Your task to perform on an android device: Open Chrome and go to settings Image 0: 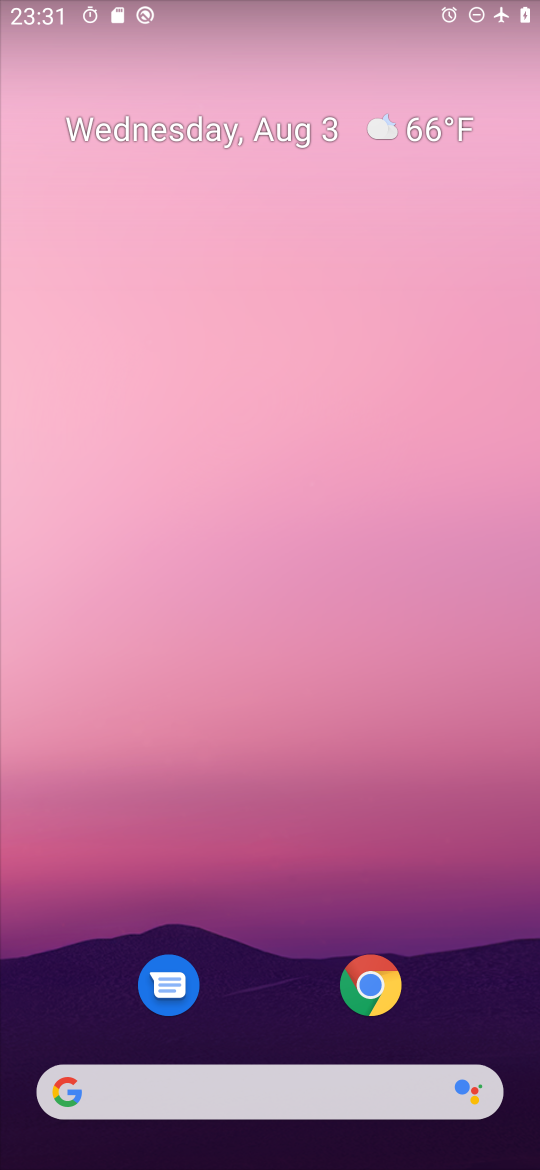
Step 0: click (380, 980)
Your task to perform on an android device: Open Chrome and go to settings Image 1: 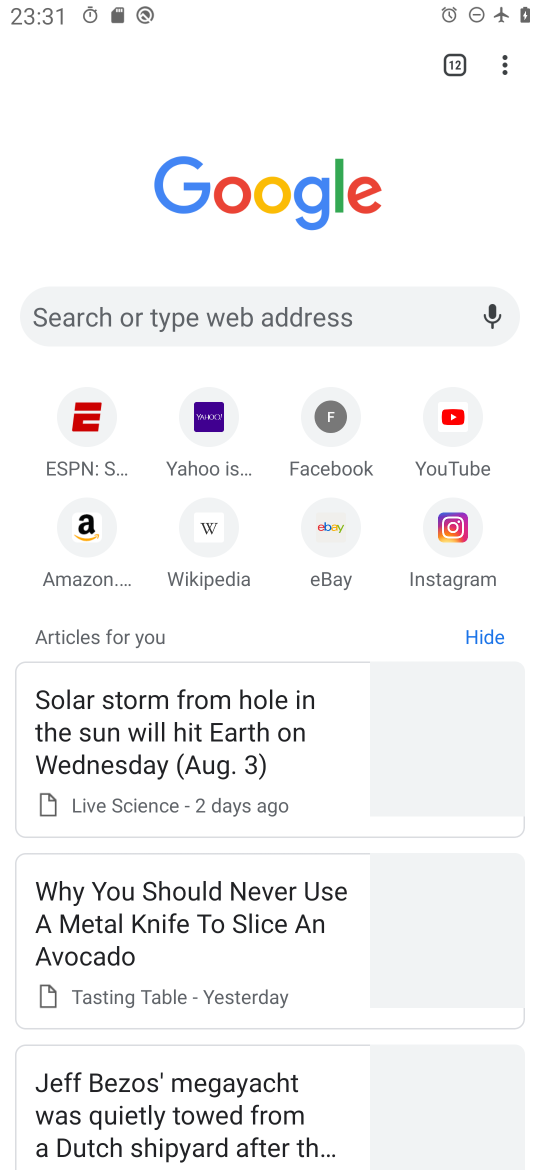
Step 1: click (500, 69)
Your task to perform on an android device: Open Chrome and go to settings Image 2: 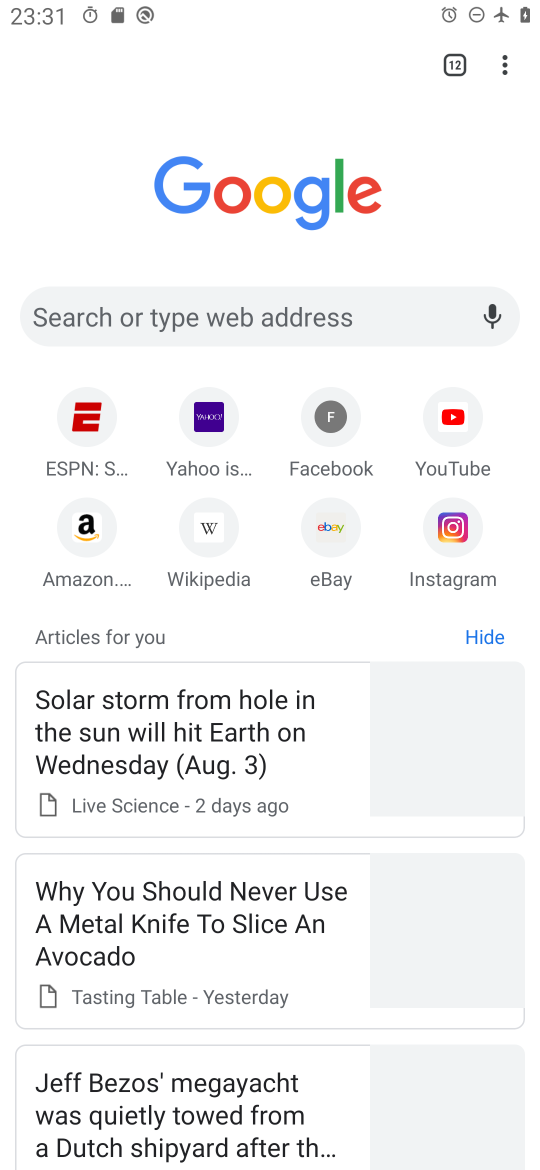
Step 2: click (505, 66)
Your task to perform on an android device: Open Chrome and go to settings Image 3: 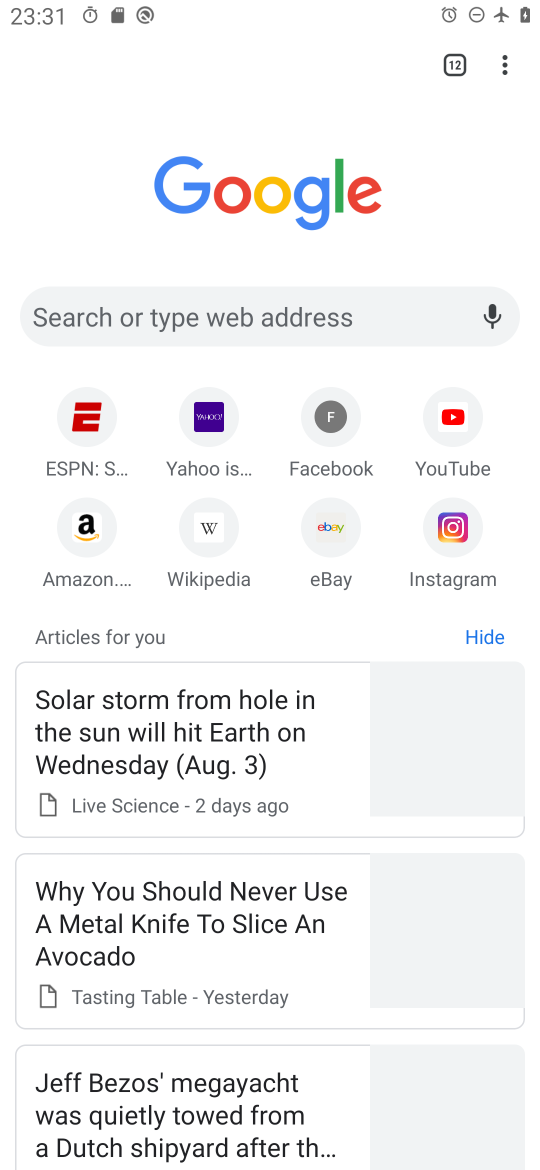
Step 3: task complete